Your task to perform on an android device: Open Reddit.com Image 0: 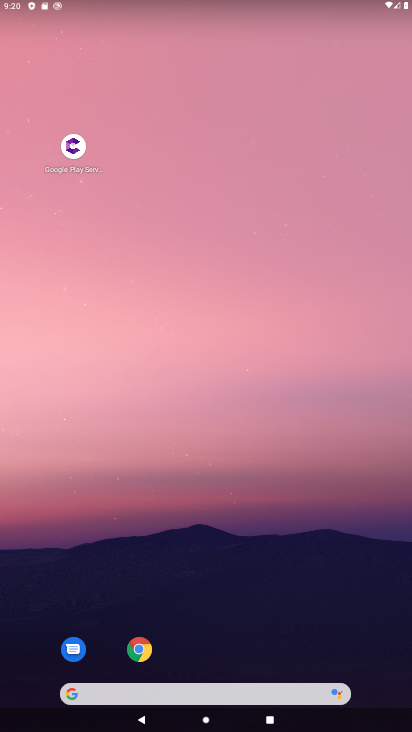
Step 0: click (131, 655)
Your task to perform on an android device: Open Reddit.com Image 1: 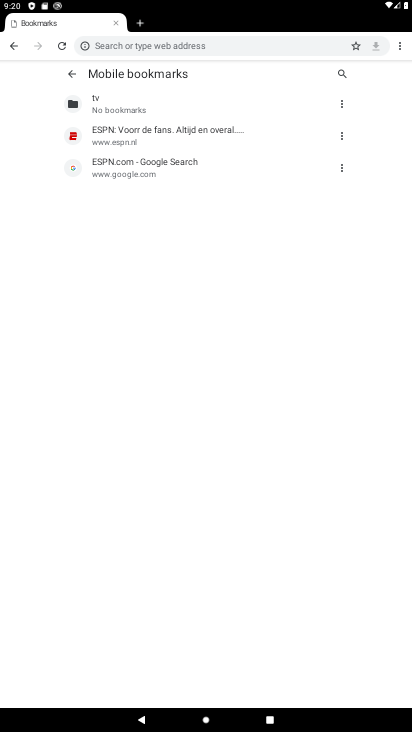
Step 1: click (10, 46)
Your task to perform on an android device: Open Reddit.com Image 2: 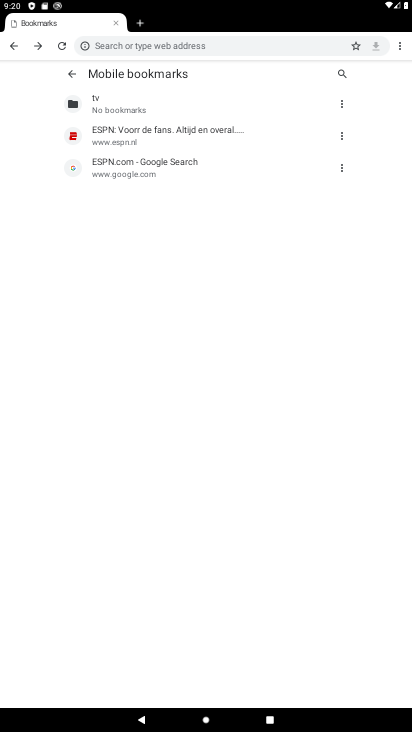
Step 2: click (204, 46)
Your task to perform on an android device: Open Reddit.com Image 3: 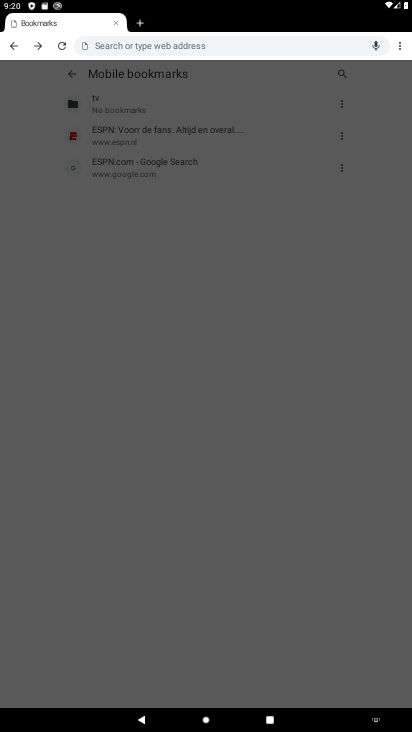
Step 3: type "www.reddit.com"
Your task to perform on an android device: Open Reddit.com Image 4: 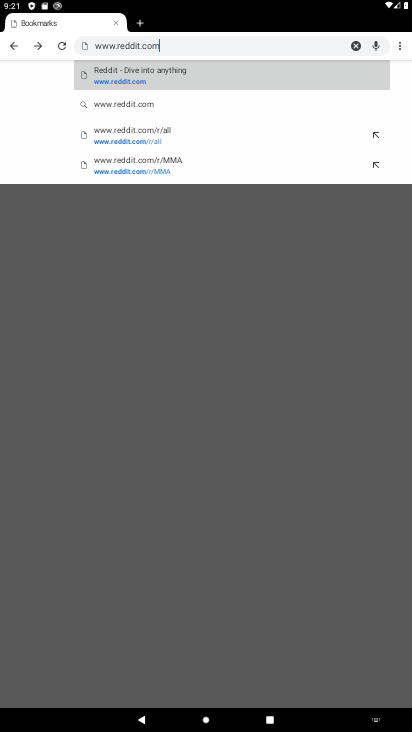
Step 4: click (112, 75)
Your task to perform on an android device: Open Reddit.com Image 5: 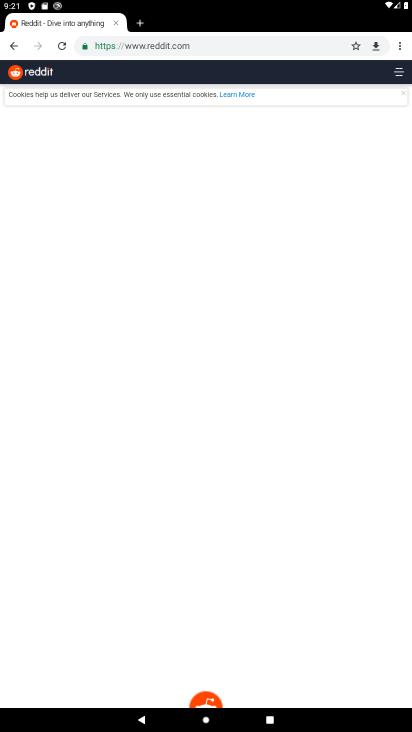
Step 5: task complete